Your task to perform on an android device: change notification settings in the gmail app Image 0: 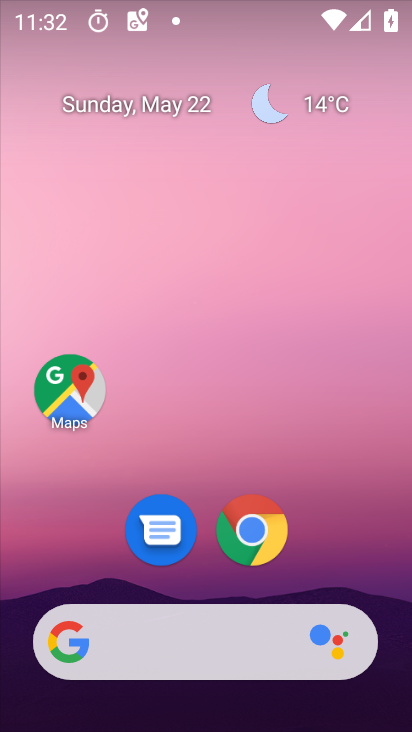
Step 0: drag from (353, 278) to (352, 242)
Your task to perform on an android device: change notification settings in the gmail app Image 1: 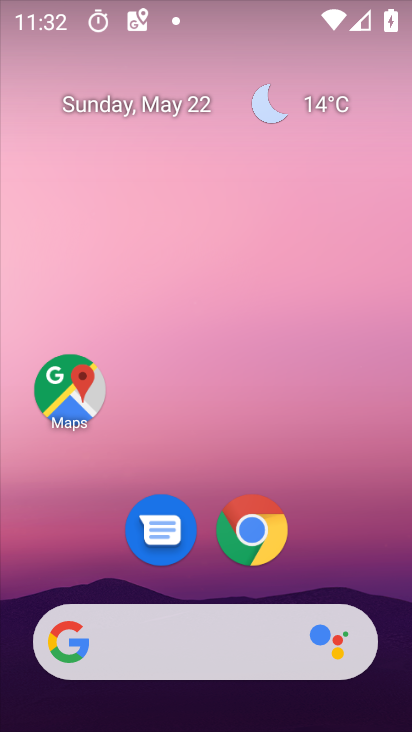
Step 1: drag from (403, 705) to (411, 130)
Your task to perform on an android device: change notification settings in the gmail app Image 2: 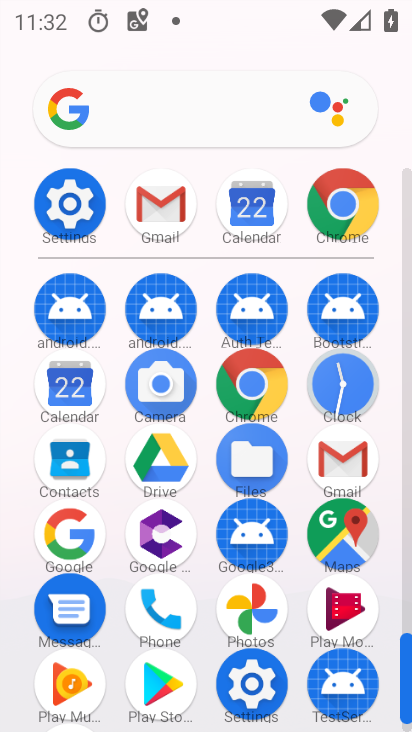
Step 2: click (349, 442)
Your task to perform on an android device: change notification settings in the gmail app Image 3: 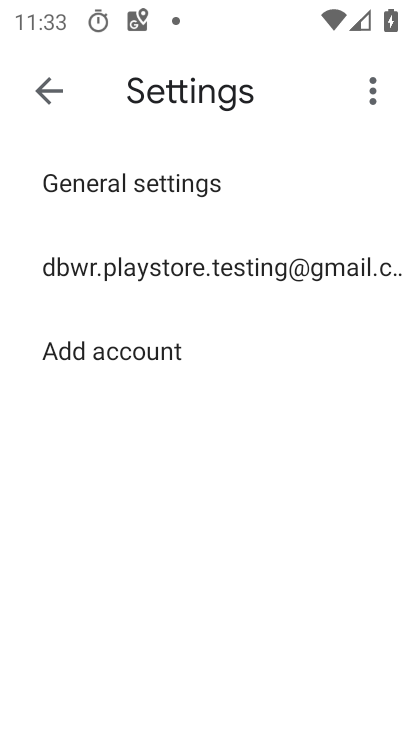
Step 3: click (119, 174)
Your task to perform on an android device: change notification settings in the gmail app Image 4: 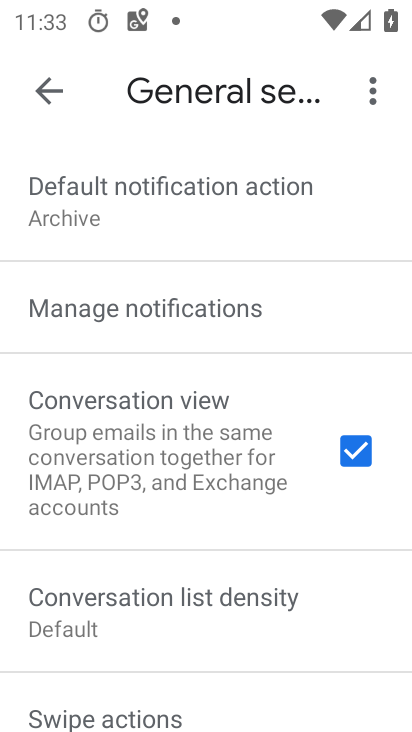
Step 4: click (111, 307)
Your task to perform on an android device: change notification settings in the gmail app Image 5: 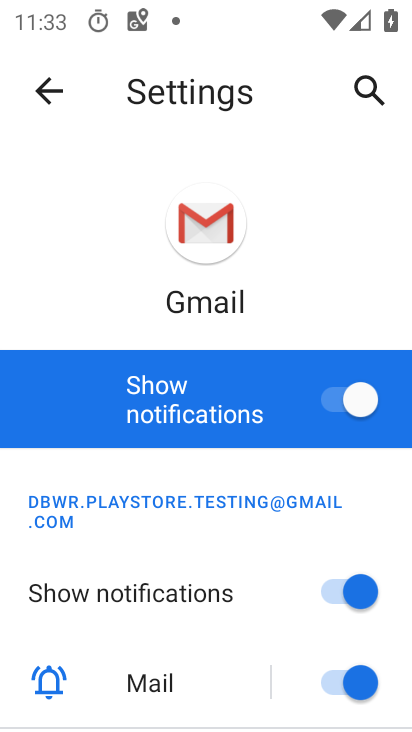
Step 5: drag from (250, 625) to (271, 312)
Your task to perform on an android device: change notification settings in the gmail app Image 6: 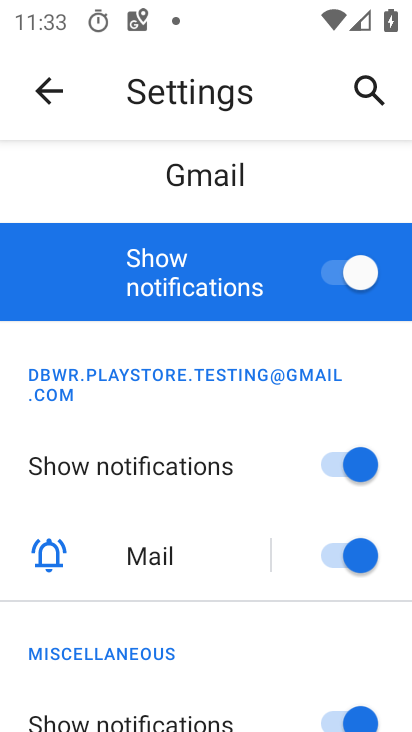
Step 6: drag from (261, 639) to (278, 290)
Your task to perform on an android device: change notification settings in the gmail app Image 7: 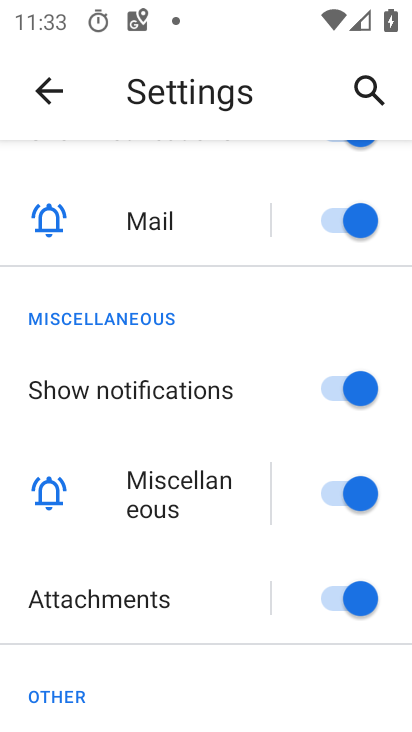
Step 7: drag from (219, 691) to (229, 357)
Your task to perform on an android device: change notification settings in the gmail app Image 8: 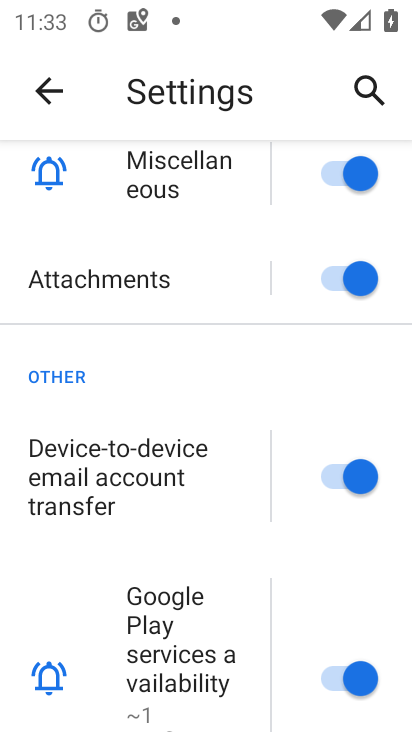
Step 8: drag from (239, 630) to (239, 357)
Your task to perform on an android device: change notification settings in the gmail app Image 9: 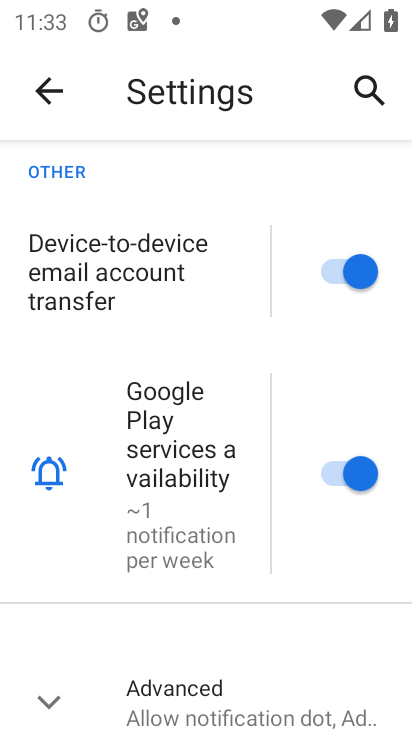
Step 9: drag from (269, 196) to (242, 676)
Your task to perform on an android device: change notification settings in the gmail app Image 10: 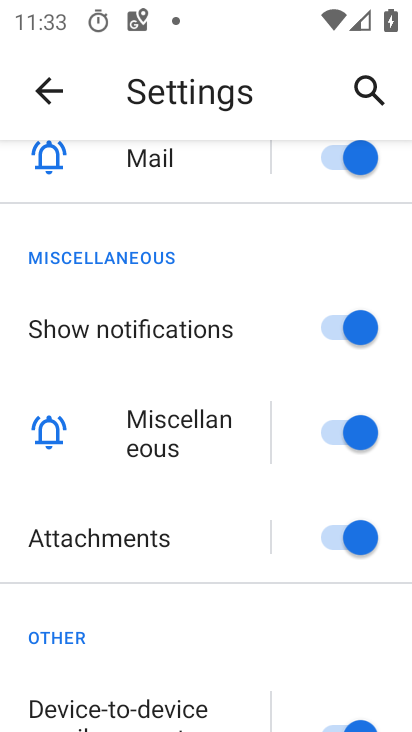
Step 10: drag from (246, 180) to (307, 645)
Your task to perform on an android device: change notification settings in the gmail app Image 11: 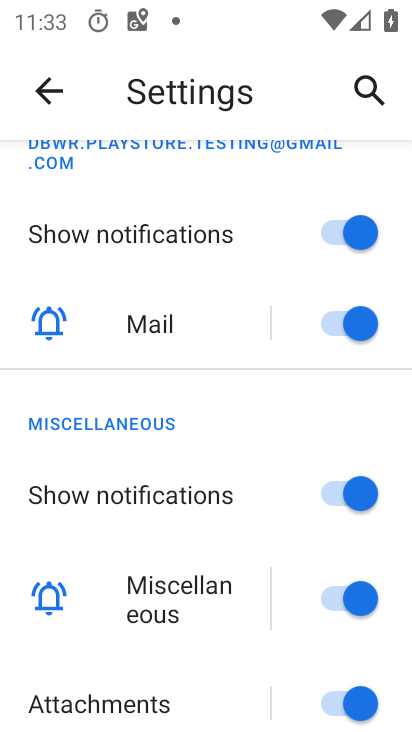
Step 11: drag from (257, 188) to (262, 608)
Your task to perform on an android device: change notification settings in the gmail app Image 12: 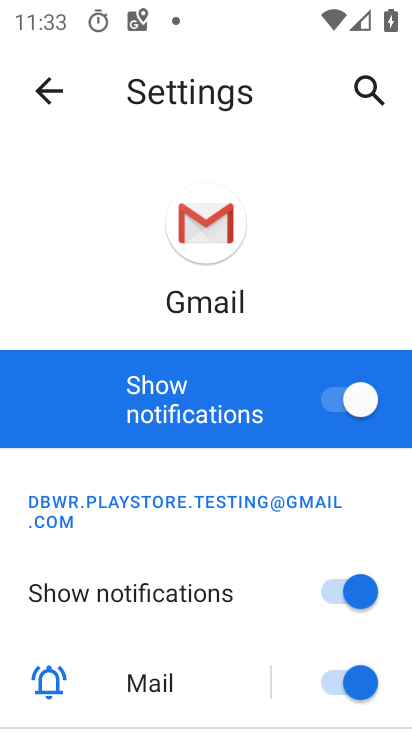
Step 12: click (333, 404)
Your task to perform on an android device: change notification settings in the gmail app Image 13: 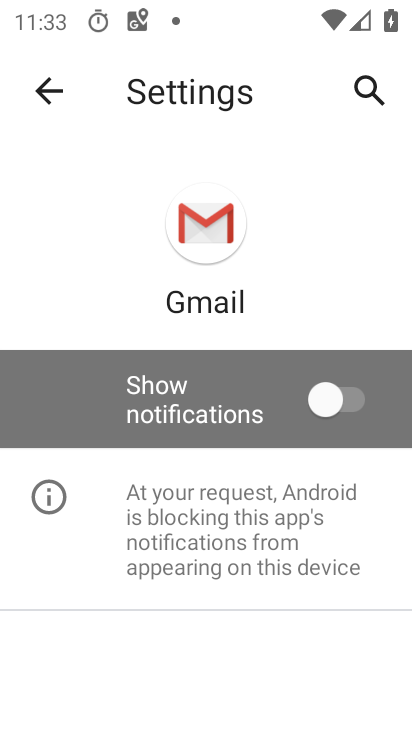
Step 13: task complete